Your task to perform on an android device: change the upload size in google photos Image 0: 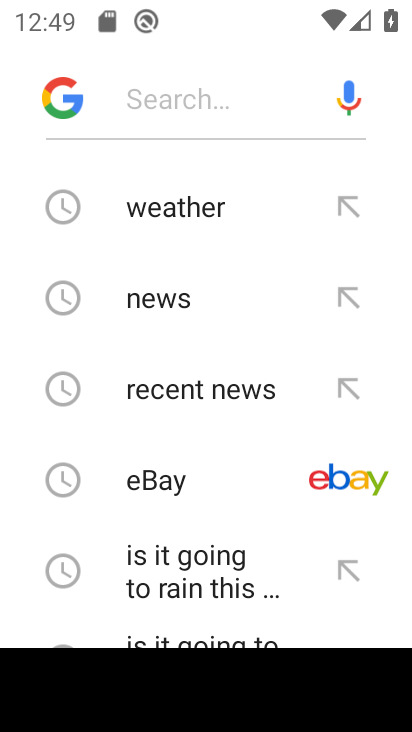
Step 0: press back button
Your task to perform on an android device: change the upload size in google photos Image 1: 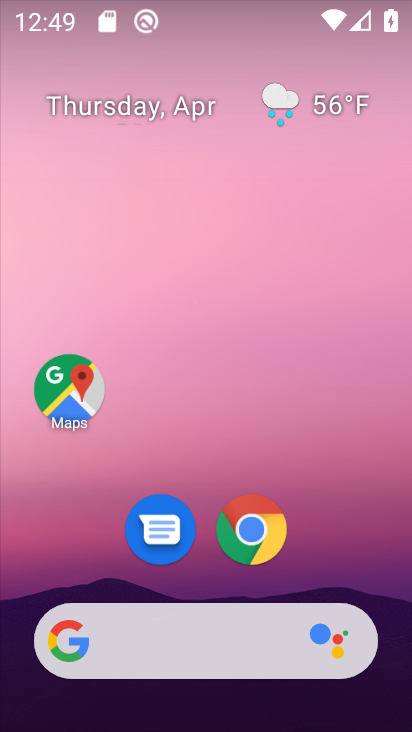
Step 1: drag from (130, 493) to (277, 79)
Your task to perform on an android device: change the upload size in google photos Image 2: 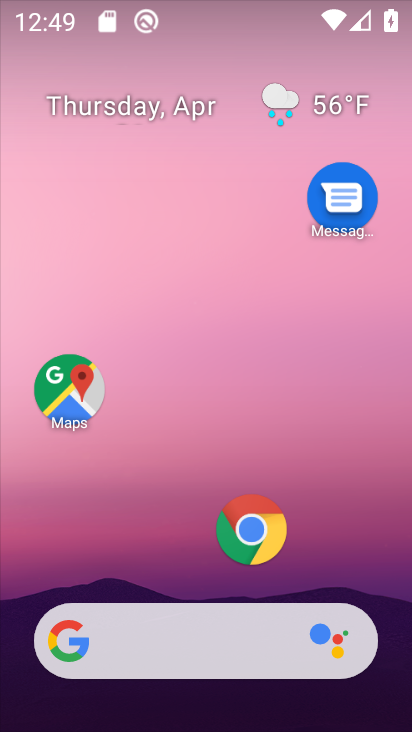
Step 2: drag from (127, 588) to (307, 39)
Your task to perform on an android device: change the upload size in google photos Image 3: 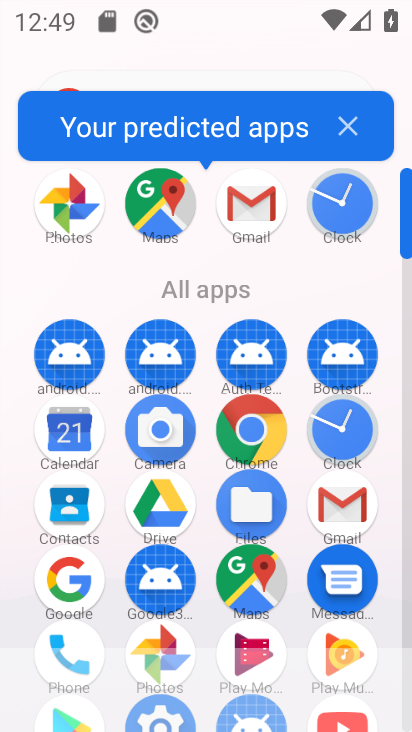
Step 3: click (87, 218)
Your task to perform on an android device: change the upload size in google photos Image 4: 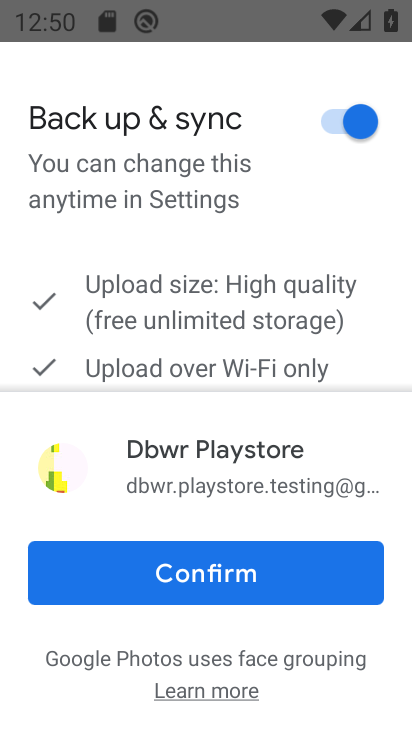
Step 4: click (284, 574)
Your task to perform on an android device: change the upload size in google photos Image 5: 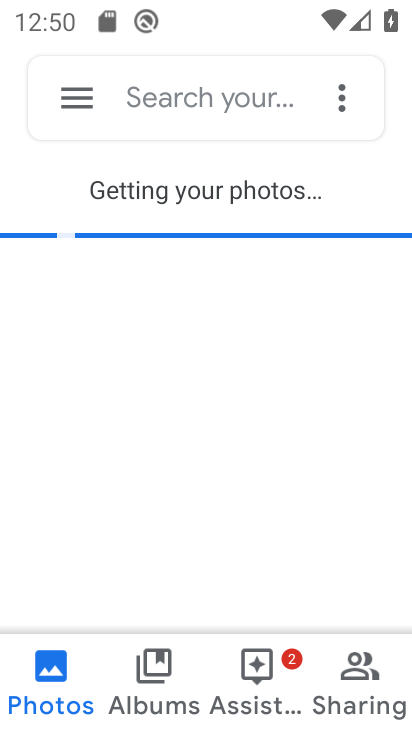
Step 5: click (73, 104)
Your task to perform on an android device: change the upload size in google photos Image 6: 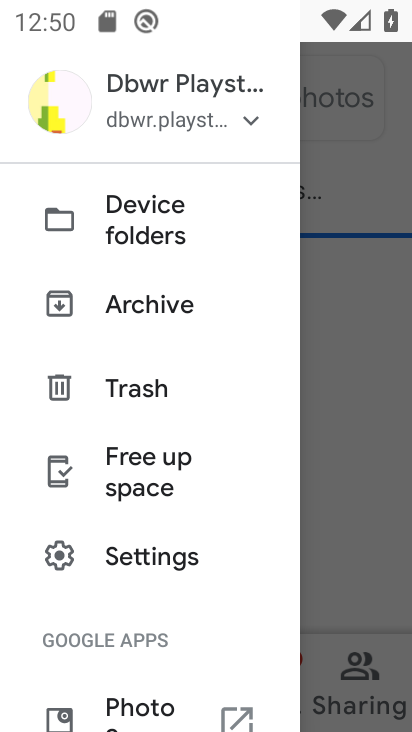
Step 6: click (139, 563)
Your task to perform on an android device: change the upload size in google photos Image 7: 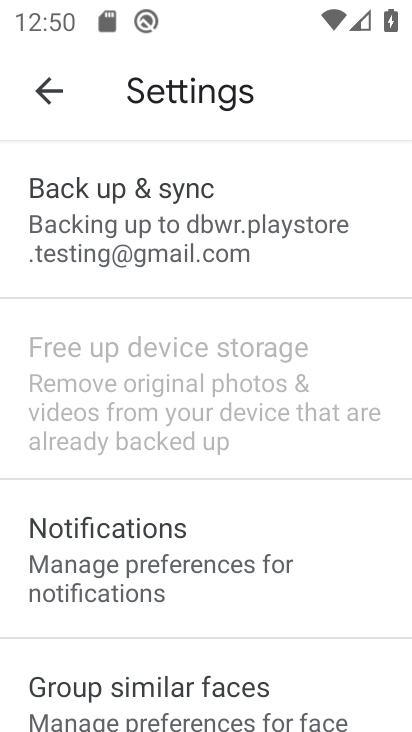
Step 7: drag from (153, 575) to (148, 609)
Your task to perform on an android device: change the upload size in google photos Image 8: 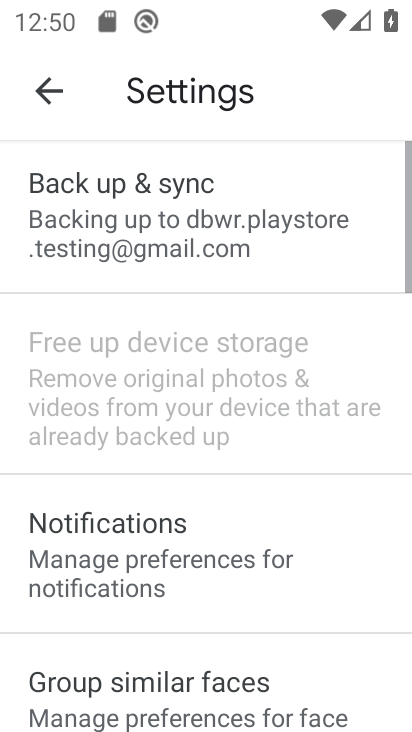
Step 8: click (243, 275)
Your task to perform on an android device: change the upload size in google photos Image 9: 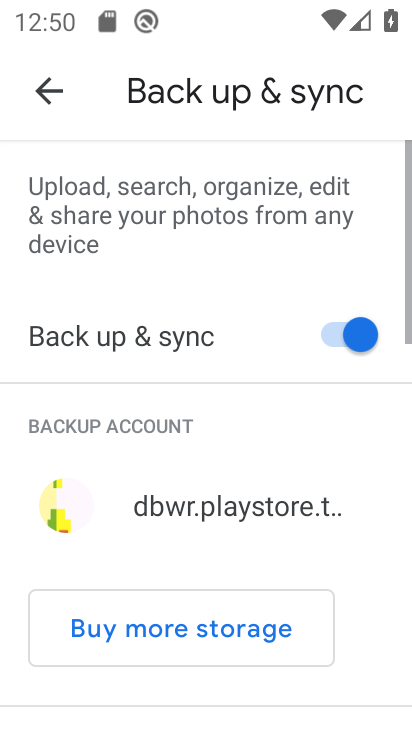
Step 9: drag from (166, 573) to (307, 136)
Your task to perform on an android device: change the upload size in google photos Image 10: 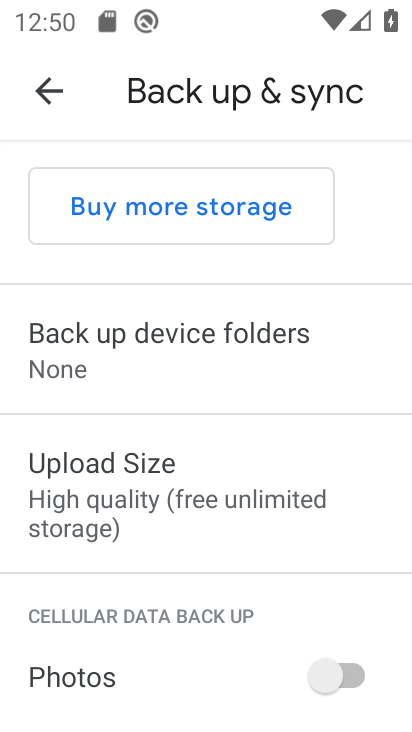
Step 10: click (204, 480)
Your task to perform on an android device: change the upload size in google photos Image 11: 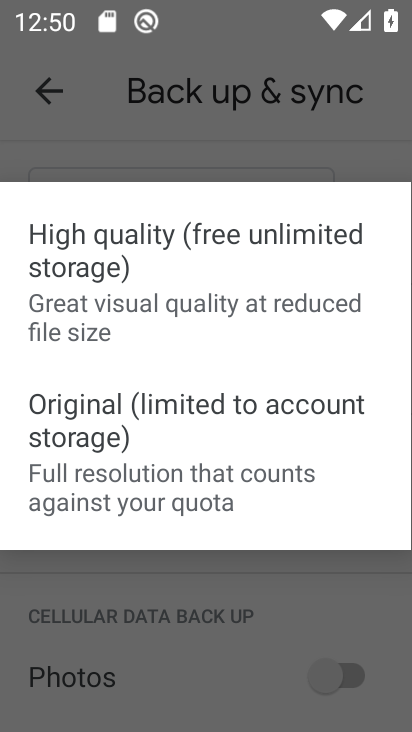
Step 11: click (312, 286)
Your task to perform on an android device: change the upload size in google photos Image 12: 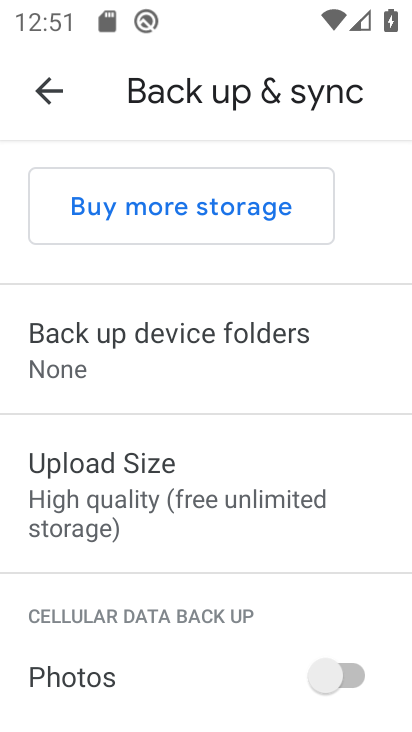
Step 12: task complete